Your task to perform on an android device: turn vacation reply on in the gmail app Image 0: 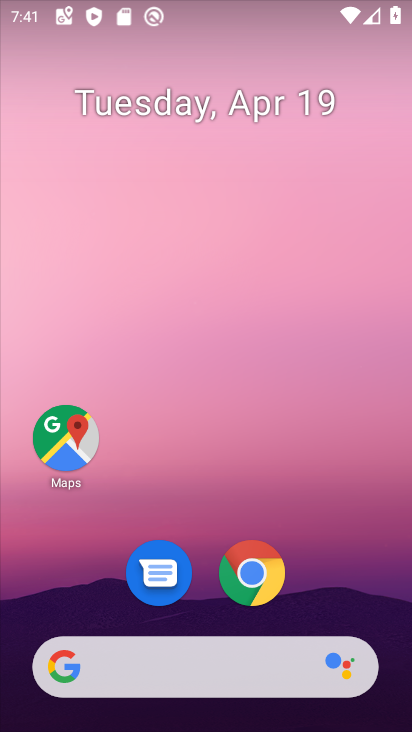
Step 0: drag from (304, 710) to (327, 187)
Your task to perform on an android device: turn vacation reply on in the gmail app Image 1: 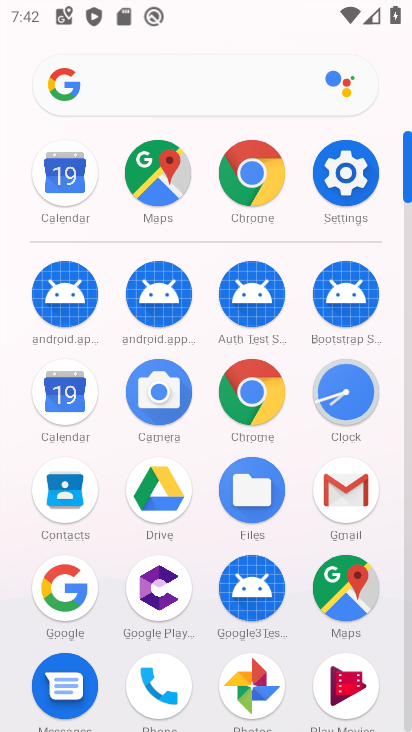
Step 1: click (336, 476)
Your task to perform on an android device: turn vacation reply on in the gmail app Image 2: 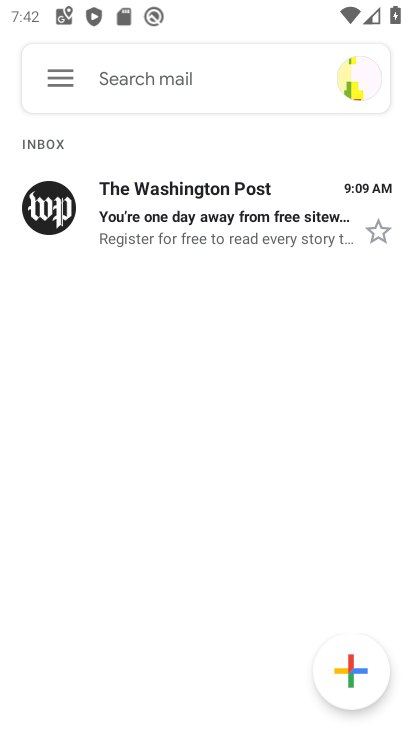
Step 2: click (47, 93)
Your task to perform on an android device: turn vacation reply on in the gmail app Image 3: 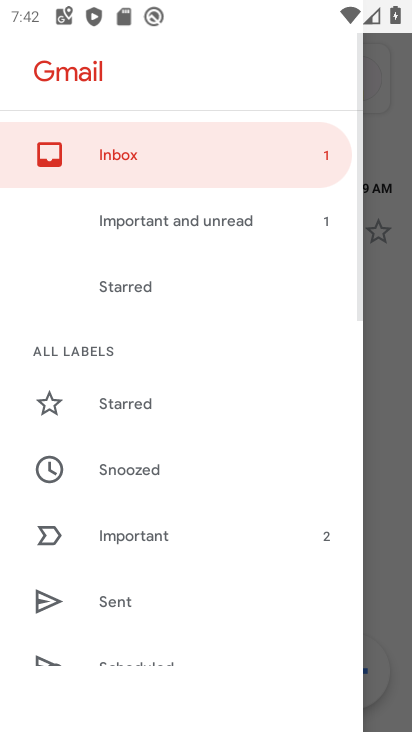
Step 3: drag from (157, 539) to (257, 223)
Your task to perform on an android device: turn vacation reply on in the gmail app Image 4: 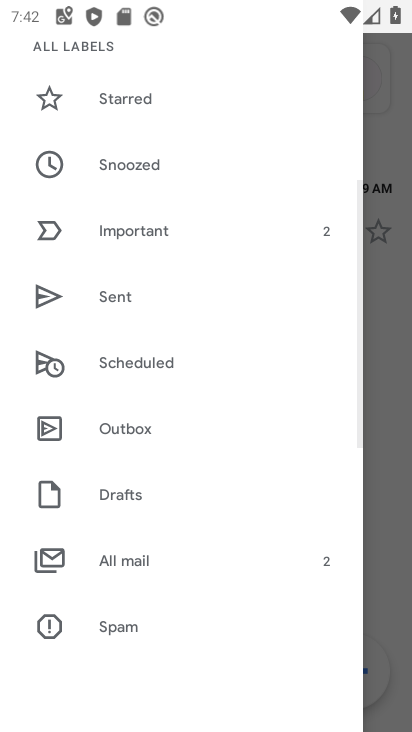
Step 4: drag from (140, 547) to (177, 380)
Your task to perform on an android device: turn vacation reply on in the gmail app Image 5: 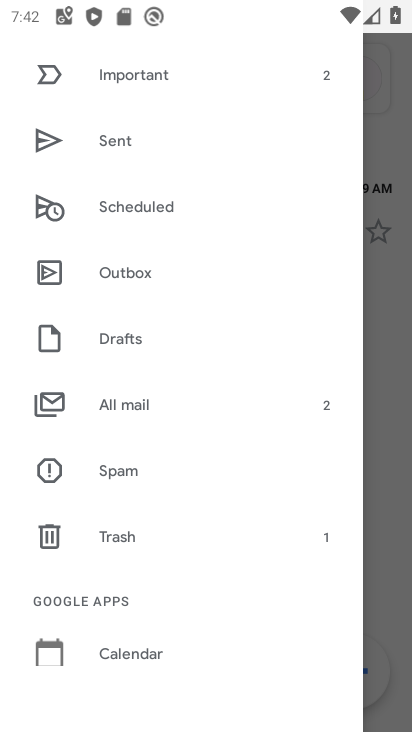
Step 5: drag from (106, 497) to (134, 373)
Your task to perform on an android device: turn vacation reply on in the gmail app Image 6: 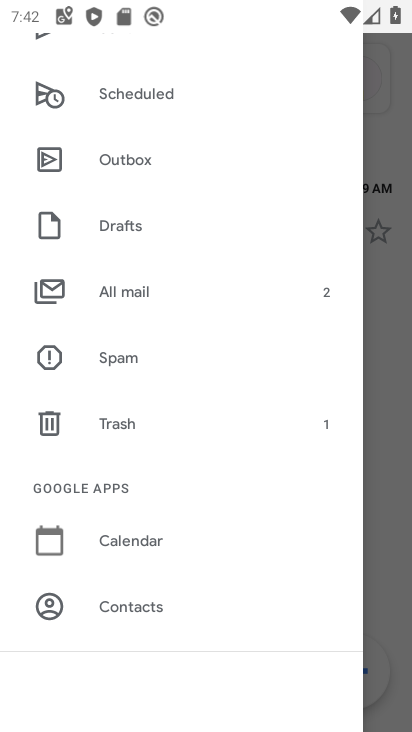
Step 6: drag from (110, 471) to (147, 294)
Your task to perform on an android device: turn vacation reply on in the gmail app Image 7: 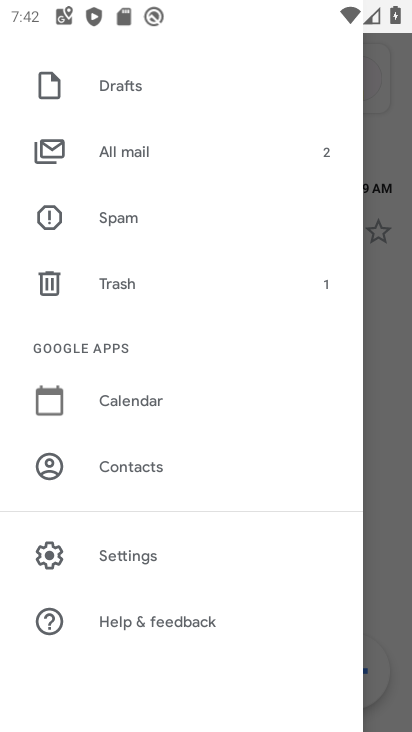
Step 7: click (136, 557)
Your task to perform on an android device: turn vacation reply on in the gmail app Image 8: 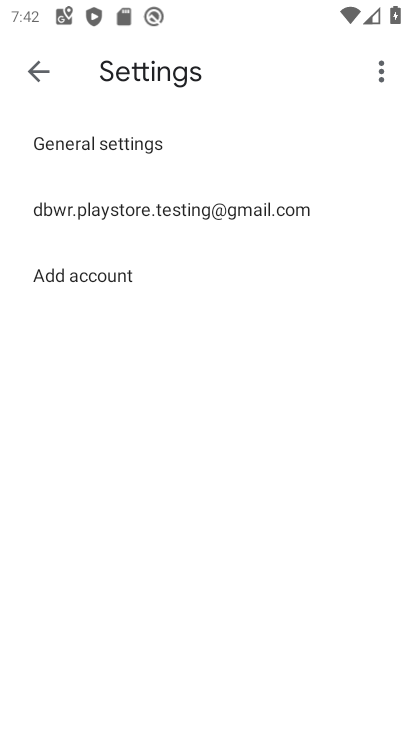
Step 8: click (143, 216)
Your task to perform on an android device: turn vacation reply on in the gmail app Image 9: 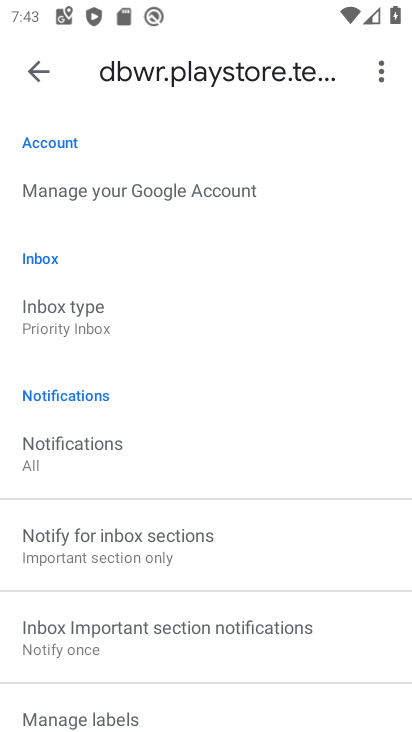
Step 9: drag from (119, 403) to (255, 63)
Your task to perform on an android device: turn vacation reply on in the gmail app Image 10: 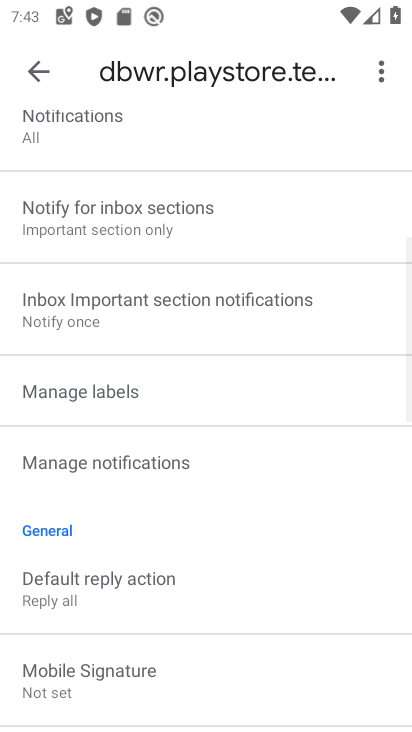
Step 10: drag from (155, 417) to (265, 149)
Your task to perform on an android device: turn vacation reply on in the gmail app Image 11: 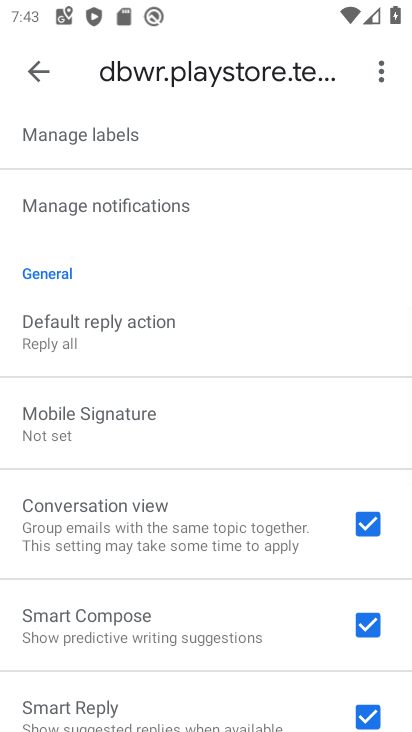
Step 11: drag from (164, 422) to (288, 144)
Your task to perform on an android device: turn vacation reply on in the gmail app Image 12: 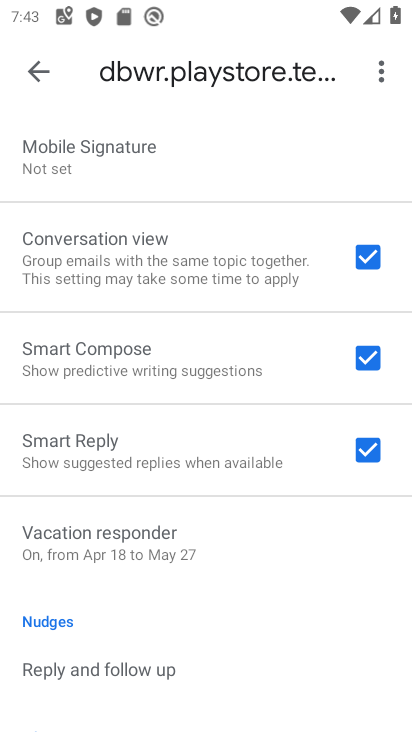
Step 12: drag from (187, 390) to (250, 219)
Your task to perform on an android device: turn vacation reply on in the gmail app Image 13: 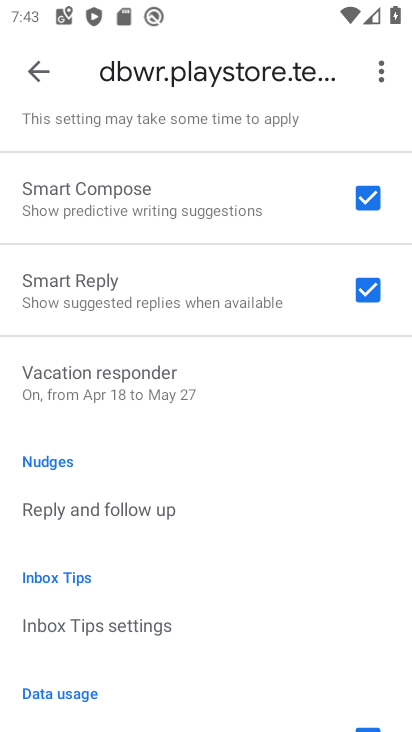
Step 13: drag from (169, 373) to (187, 214)
Your task to perform on an android device: turn vacation reply on in the gmail app Image 14: 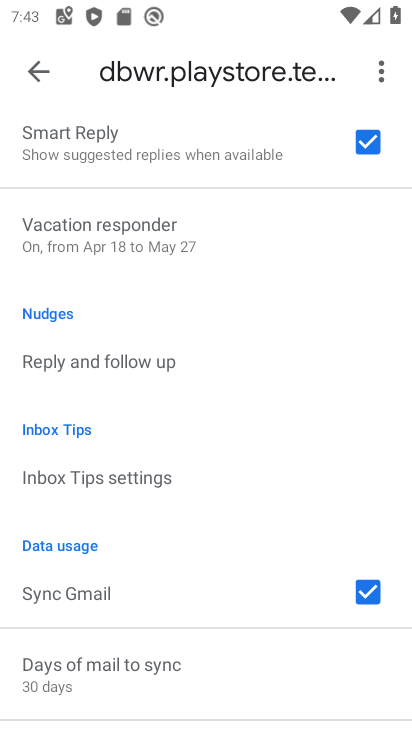
Step 14: drag from (161, 430) to (209, 227)
Your task to perform on an android device: turn vacation reply on in the gmail app Image 15: 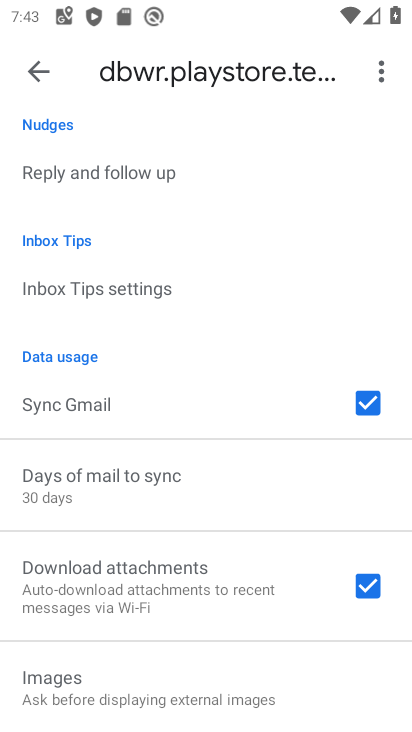
Step 15: drag from (156, 479) to (201, 259)
Your task to perform on an android device: turn vacation reply on in the gmail app Image 16: 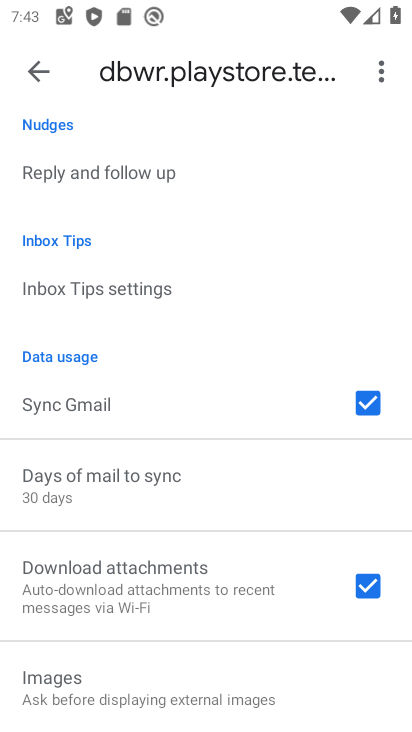
Step 16: drag from (174, 516) to (228, 322)
Your task to perform on an android device: turn vacation reply on in the gmail app Image 17: 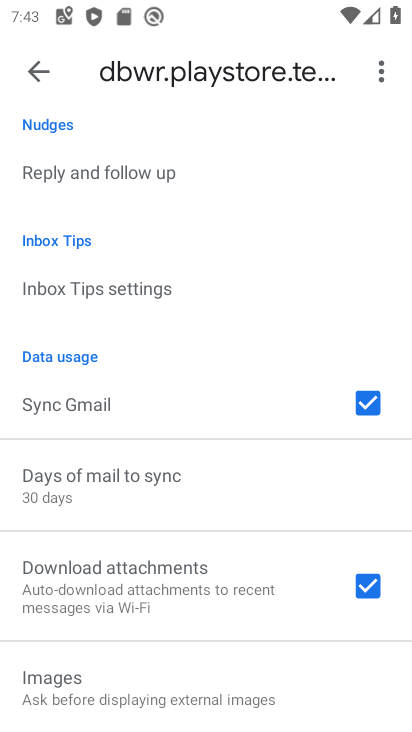
Step 17: drag from (247, 265) to (166, 547)
Your task to perform on an android device: turn vacation reply on in the gmail app Image 18: 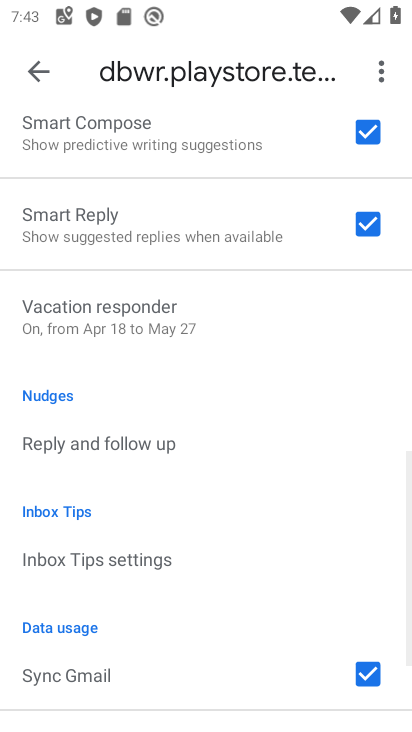
Step 18: drag from (271, 231) to (243, 306)
Your task to perform on an android device: turn vacation reply on in the gmail app Image 19: 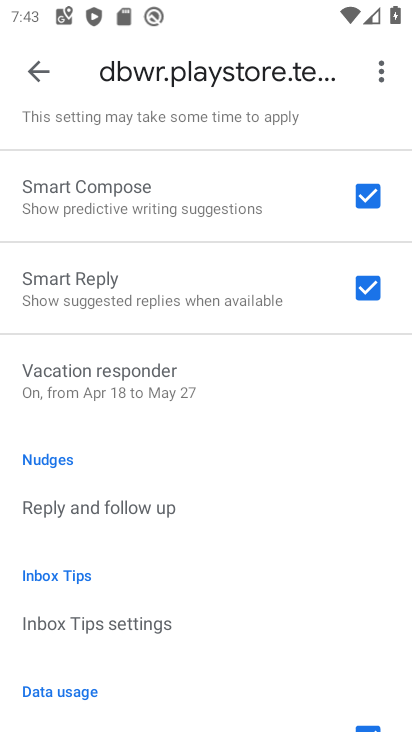
Step 19: drag from (239, 229) to (196, 387)
Your task to perform on an android device: turn vacation reply on in the gmail app Image 20: 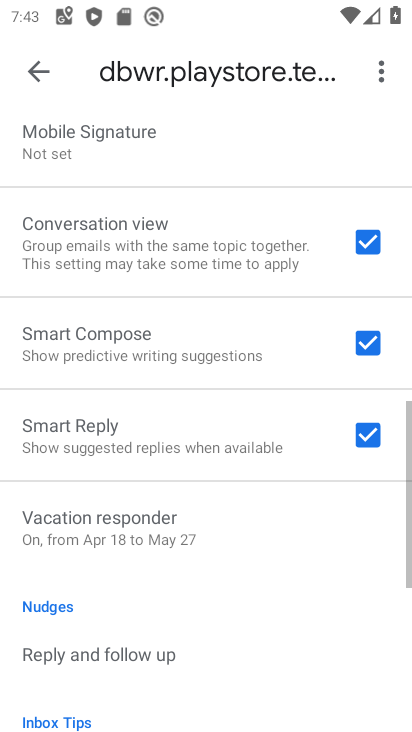
Step 20: click (237, 248)
Your task to perform on an android device: turn vacation reply on in the gmail app Image 21: 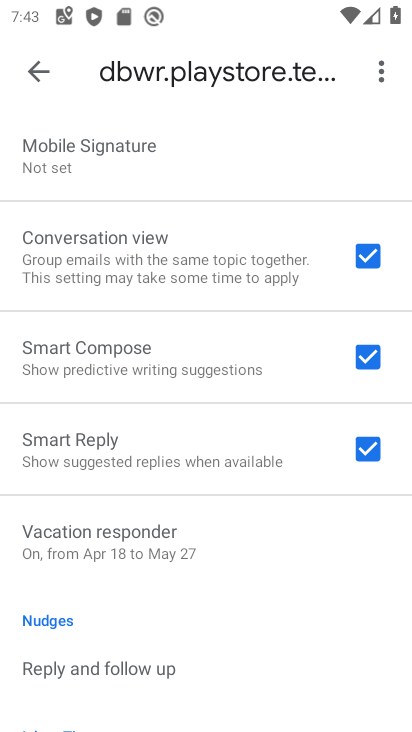
Step 21: click (146, 525)
Your task to perform on an android device: turn vacation reply on in the gmail app Image 22: 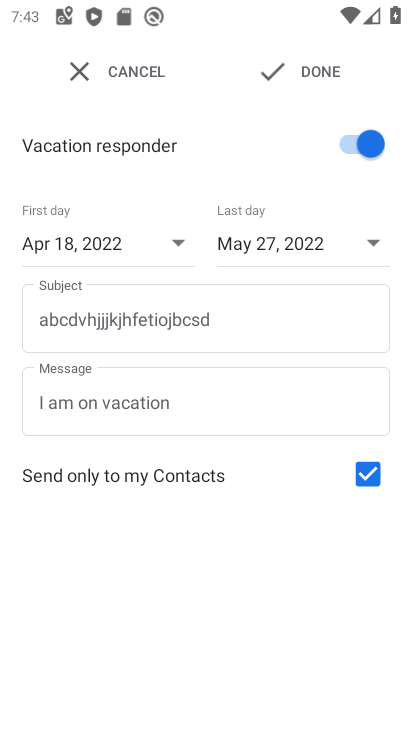
Step 22: task complete